Your task to perform on an android device: toggle data saver in the chrome app Image 0: 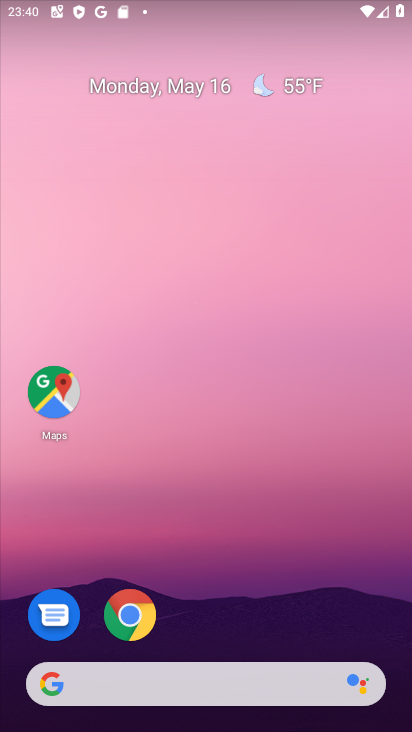
Step 0: drag from (228, 657) to (191, 65)
Your task to perform on an android device: toggle data saver in the chrome app Image 1: 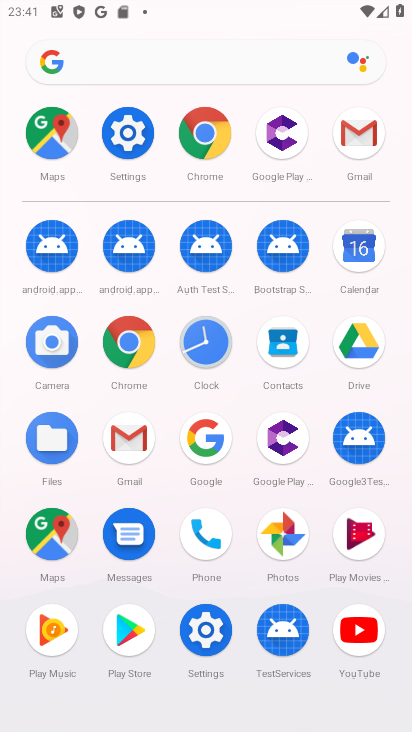
Step 1: click (142, 345)
Your task to perform on an android device: toggle data saver in the chrome app Image 2: 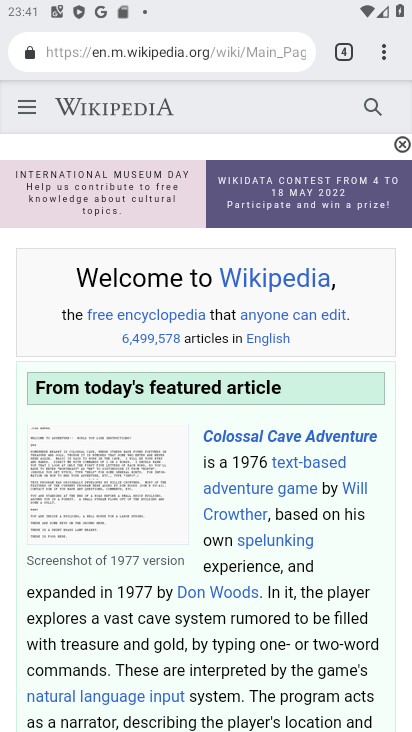
Step 2: click (380, 57)
Your task to perform on an android device: toggle data saver in the chrome app Image 3: 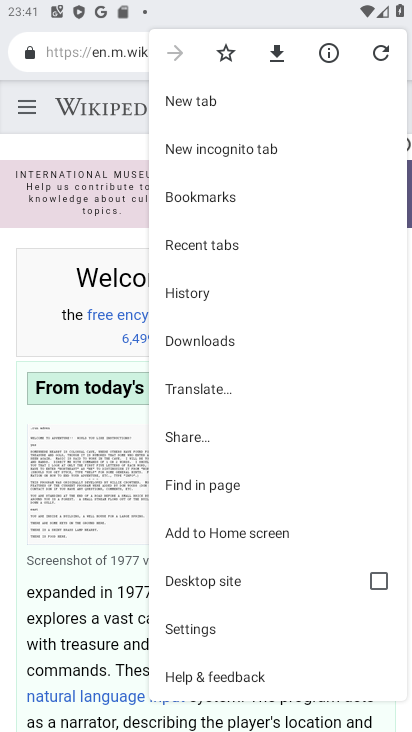
Step 3: click (198, 622)
Your task to perform on an android device: toggle data saver in the chrome app Image 4: 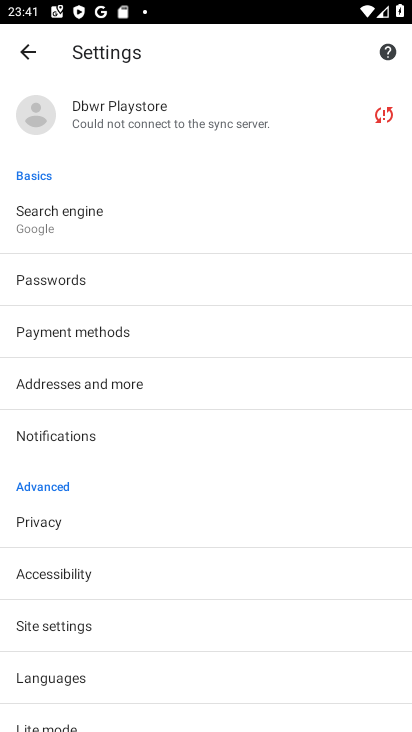
Step 4: drag from (32, 601) to (26, 92)
Your task to perform on an android device: toggle data saver in the chrome app Image 5: 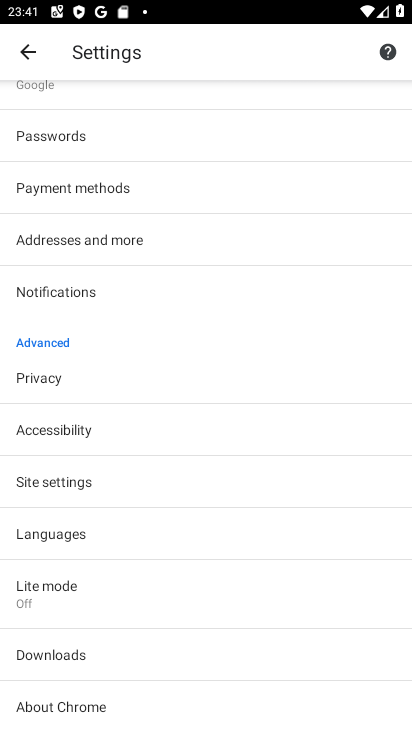
Step 5: click (41, 593)
Your task to perform on an android device: toggle data saver in the chrome app Image 6: 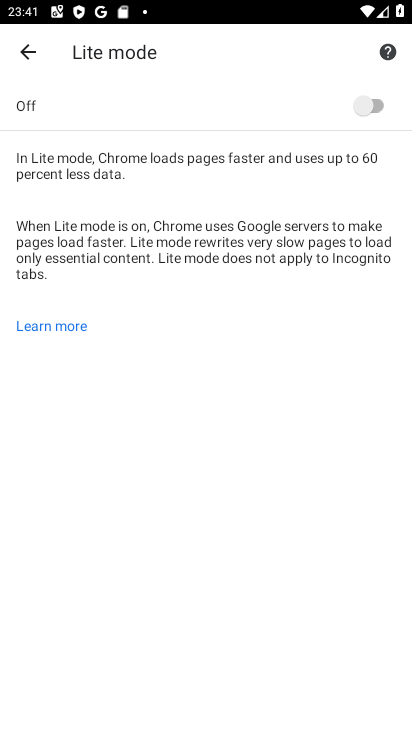
Step 6: click (380, 95)
Your task to perform on an android device: toggle data saver in the chrome app Image 7: 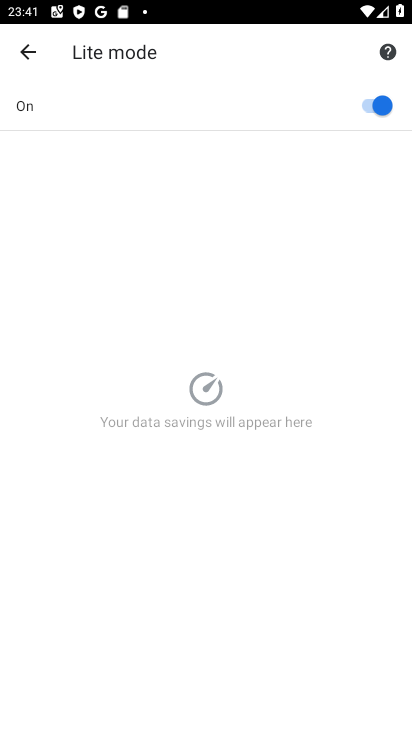
Step 7: task complete